Your task to perform on an android device: Open Reddit.com Image 0: 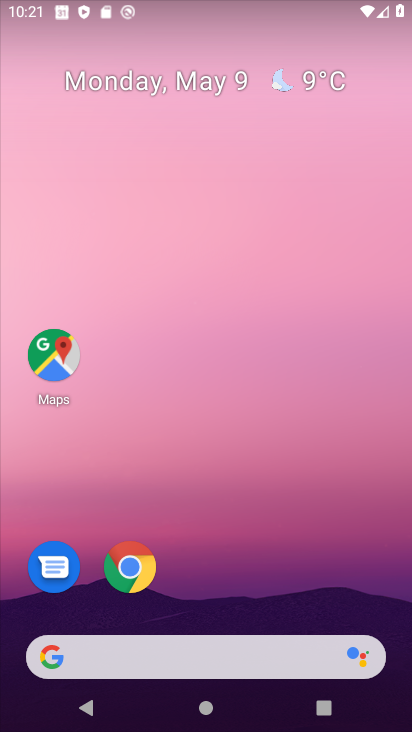
Step 0: drag from (222, 599) to (233, 65)
Your task to perform on an android device: Open Reddit.com Image 1: 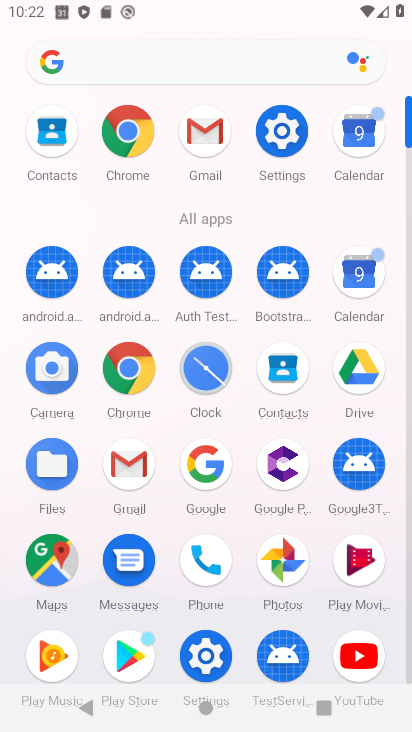
Step 1: click (127, 123)
Your task to perform on an android device: Open Reddit.com Image 2: 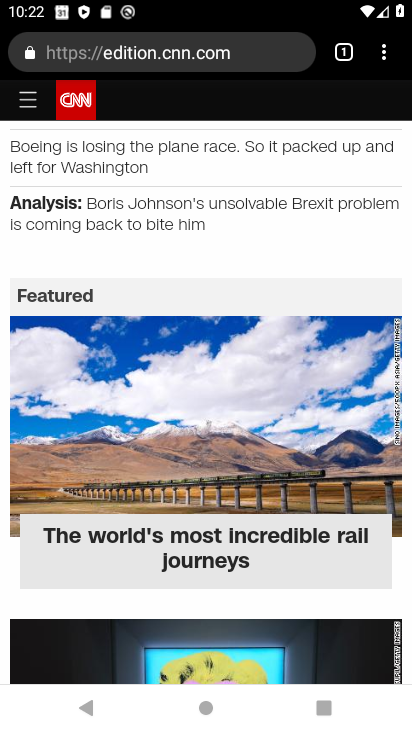
Step 2: click (330, 56)
Your task to perform on an android device: Open Reddit.com Image 3: 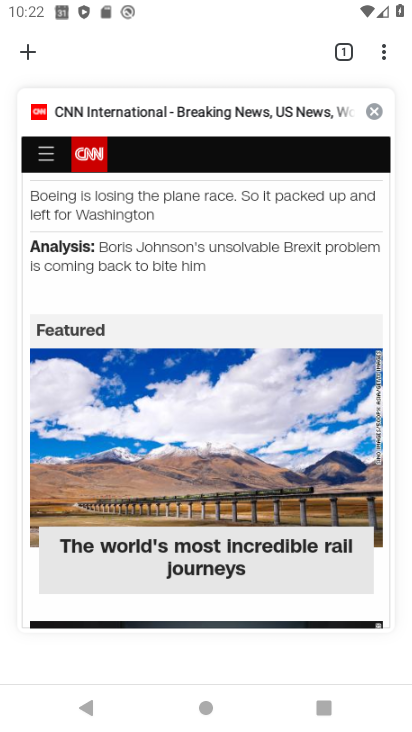
Step 3: click (368, 104)
Your task to perform on an android device: Open Reddit.com Image 4: 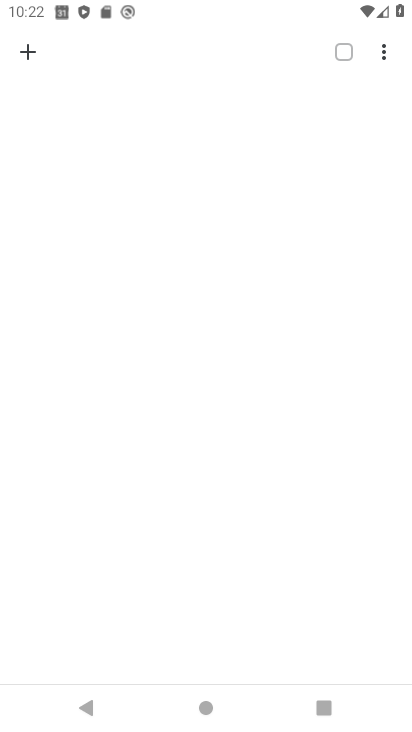
Step 4: click (34, 48)
Your task to perform on an android device: Open Reddit.com Image 5: 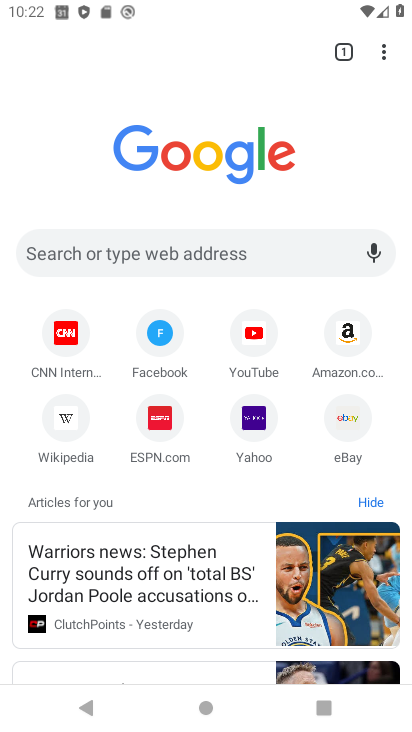
Step 5: click (230, 243)
Your task to perform on an android device: Open Reddit.com Image 6: 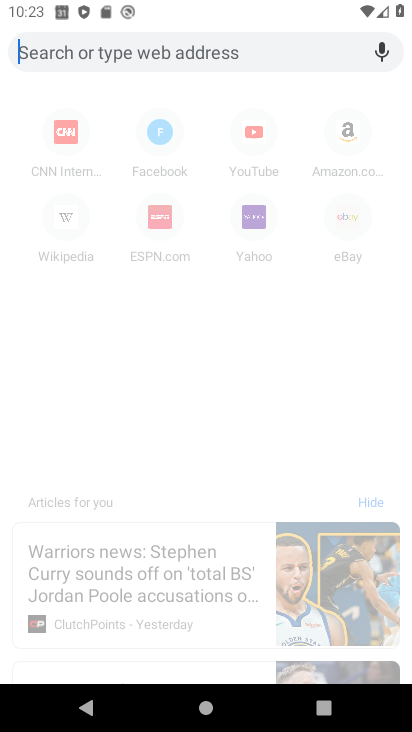
Step 6: type "reddit.com"
Your task to perform on an android device: Open Reddit.com Image 7: 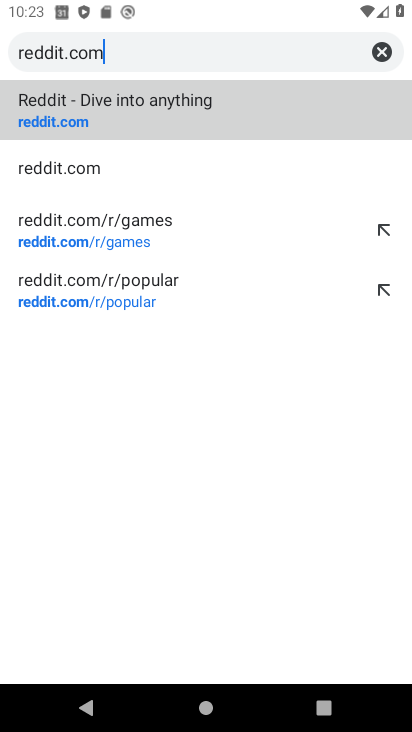
Step 7: click (141, 108)
Your task to perform on an android device: Open Reddit.com Image 8: 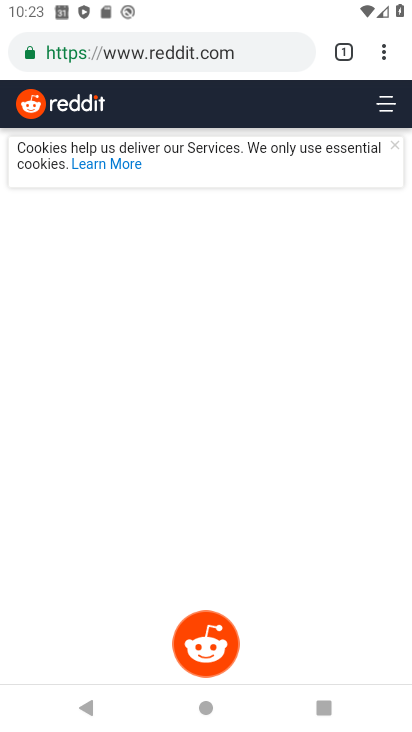
Step 8: task complete